Your task to perform on an android device: make emails show in primary in the gmail app Image 0: 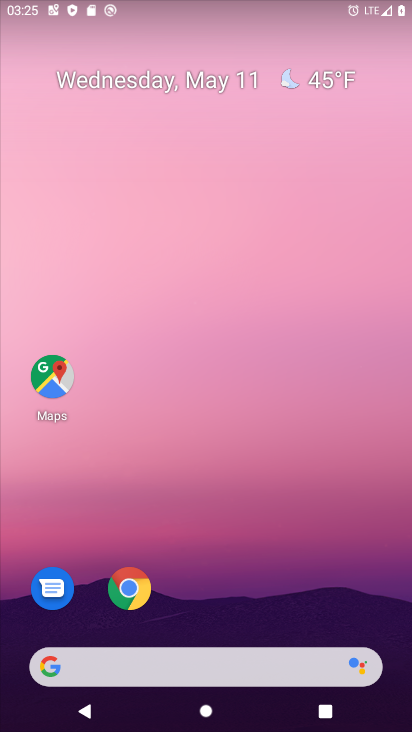
Step 0: drag from (211, 612) to (222, 238)
Your task to perform on an android device: make emails show in primary in the gmail app Image 1: 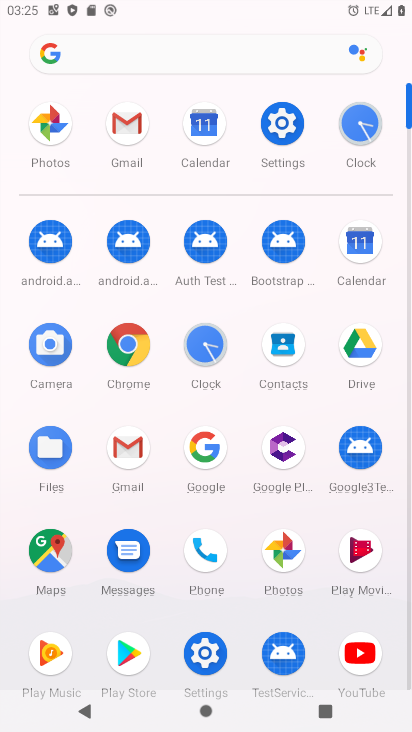
Step 1: click (117, 146)
Your task to perform on an android device: make emails show in primary in the gmail app Image 2: 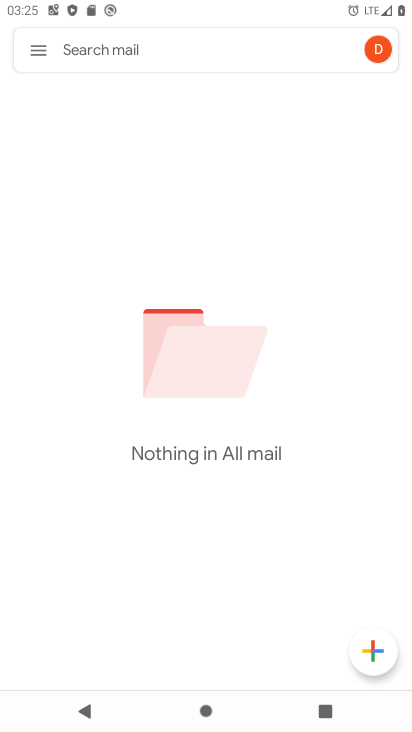
Step 2: click (41, 59)
Your task to perform on an android device: make emails show in primary in the gmail app Image 3: 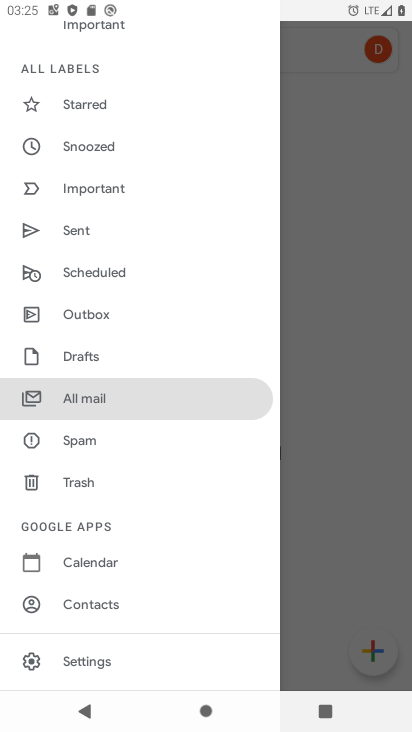
Step 3: click (92, 649)
Your task to perform on an android device: make emails show in primary in the gmail app Image 4: 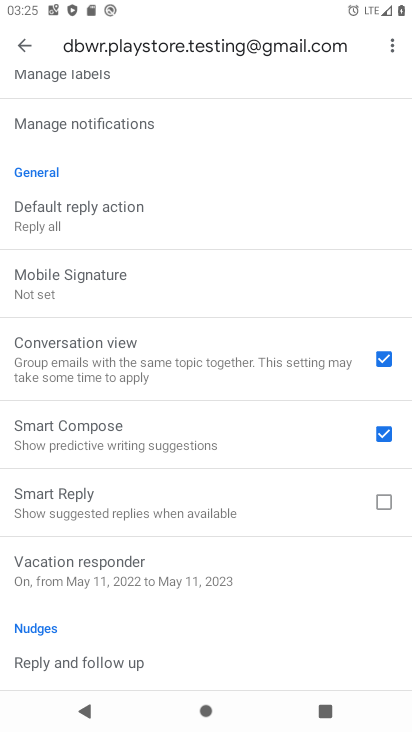
Step 4: drag from (144, 205) to (159, 471)
Your task to perform on an android device: make emails show in primary in the gmail app Image 5: 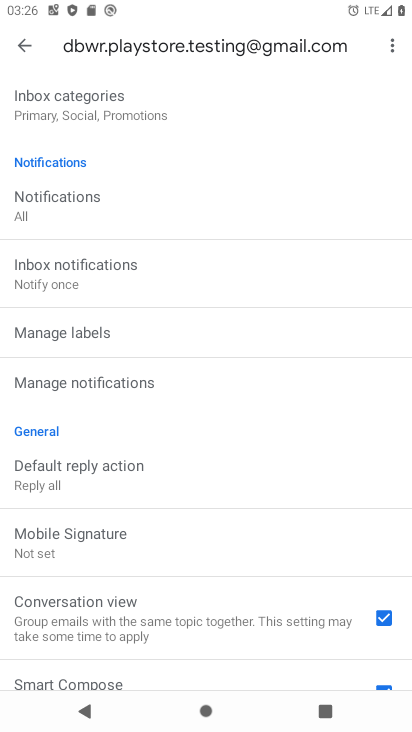
Step 5: drag from (145, 199) to (186, 438)
Your task to perform on an android device: make emails show in primary in the gmail app Image 6: 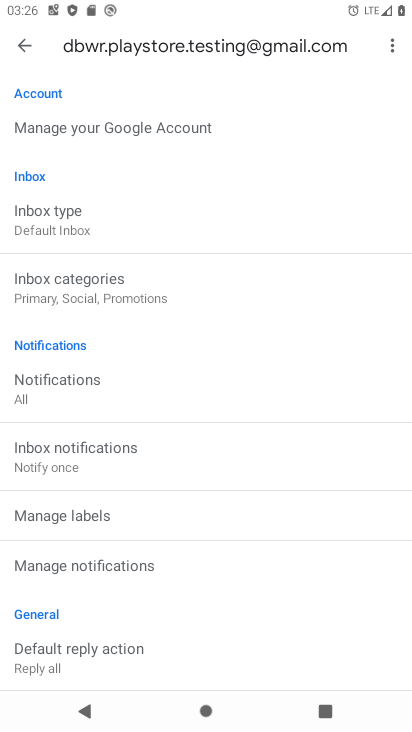
Step 6: drag from (133, 234) to (134, 438)
Your task to perform on an android device: make emails show in primary in the gmail app Image 7: 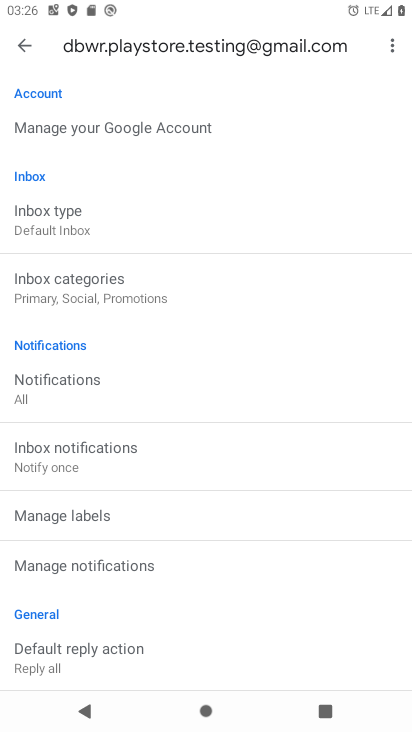
Step 7: click (98, 213)
Your task to perform on an android device: make emails show in primary in the gmail app Image 8: 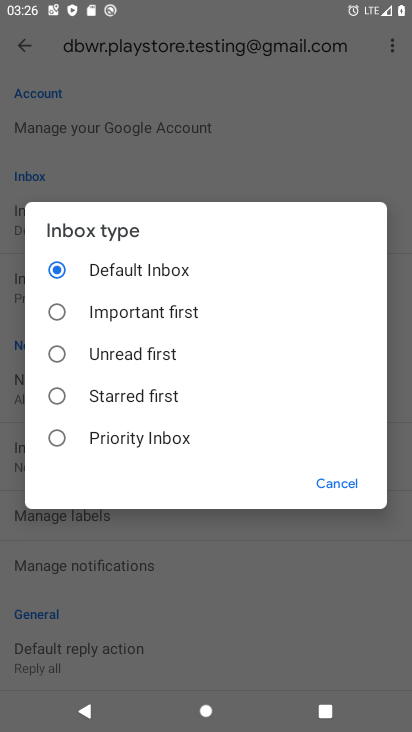
Step 8: task complete